Your task to perform on an android device: open a new tab in the chrome app Image 0: 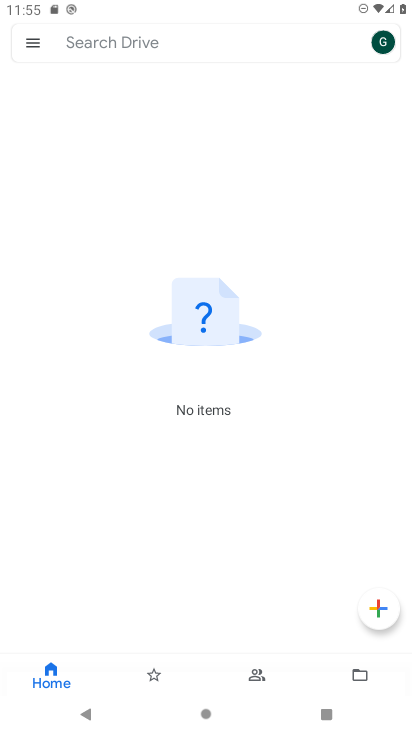
Step 0: press home button
Your task to perform on an android device: open a new tab in the chrome app Image 1: 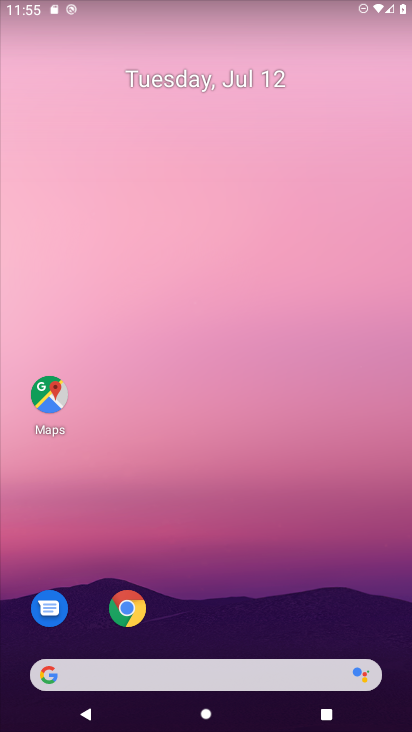
Step 1: click (124, 605)
Your task to perform on an android device: open a new tab in the chrome app Image 2: 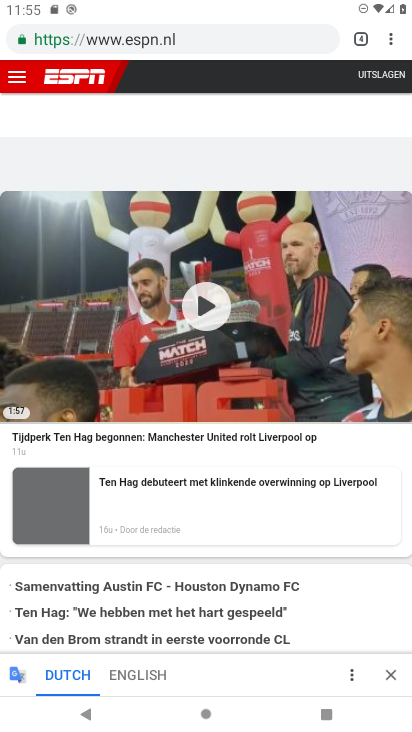
Step 2: click (389, 45)
Your task to perform on an android device: open a new tab in the chrome app Image 3: 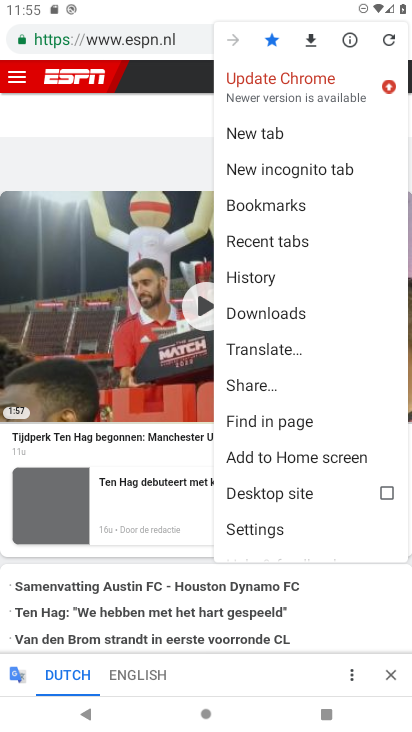
Step 3: click (261, 136)
Your task to perform on an android device: open a new tab in the chrome app Image 4: 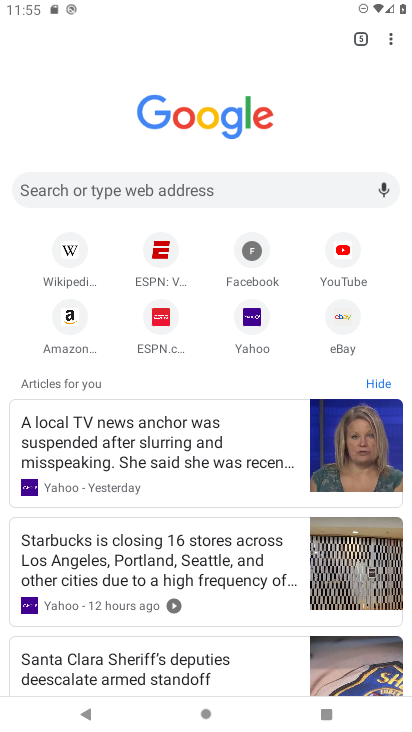
Step 4: task complete